Your task to perform on an android device: Add "dell xps" to the cart on bestbuy, then select checkout. Image 0: 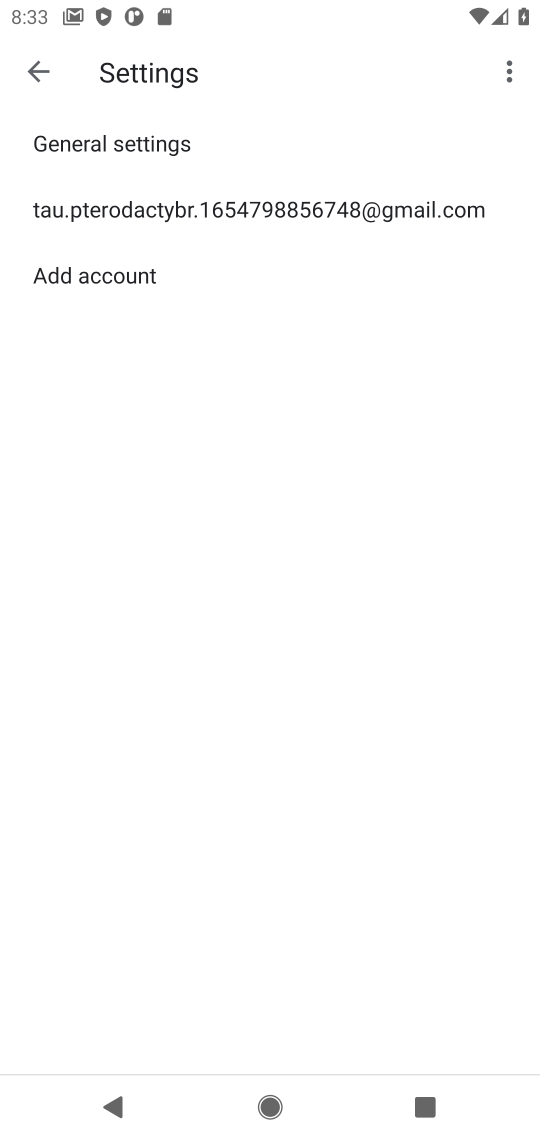
Step 0: press home button
Your task to perform on an android device: Add "dell xps" to the cart on bestbuy, then select checkout. Image 1: 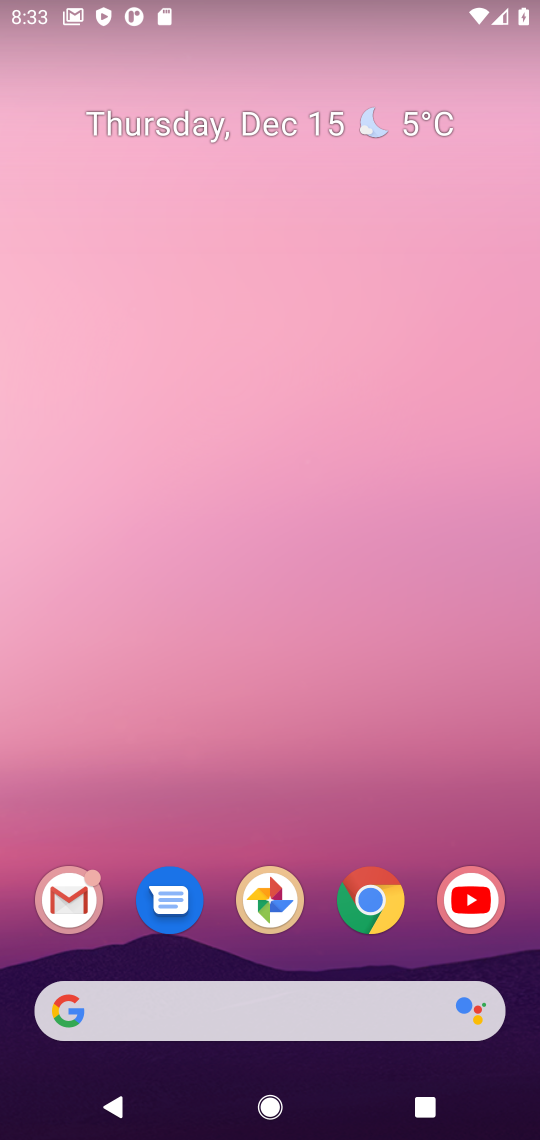
Step 1: click (375, 914)
Your task to perform on an android device: Add "dell xps" to the cart on bestbuy, then select checkout. Image 2: 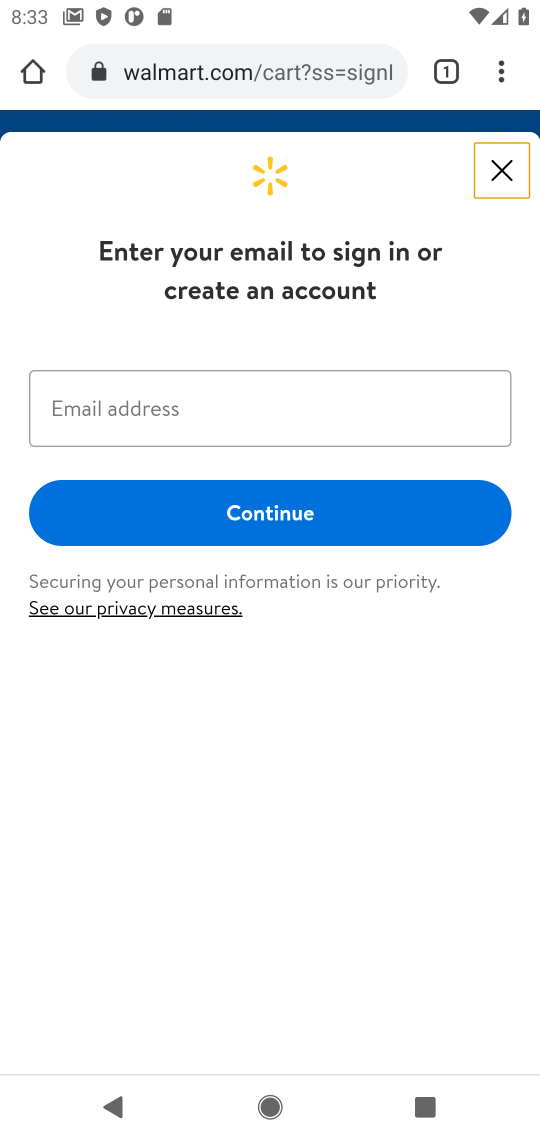
Step 2: click (247, 87)
Your task to perform on an android device: Add "dell xps" to the cart on bestbuy, then select checkout. Image 3: 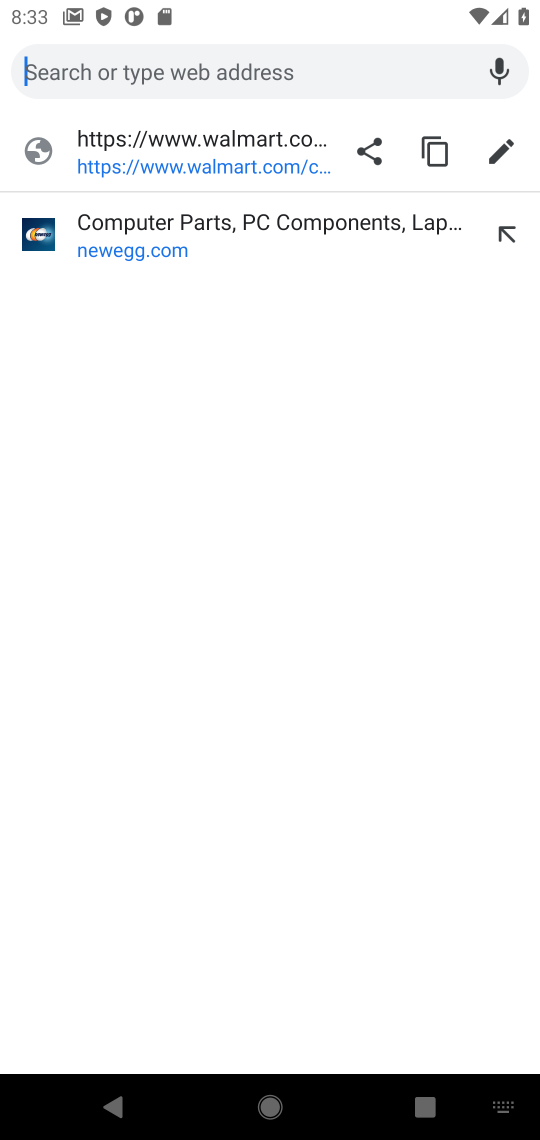
Step 3: type "bestbuy"
Your task to perform on an android device: Add "dell xps" to the cart on bestbuy, then select checkout. Image 4: 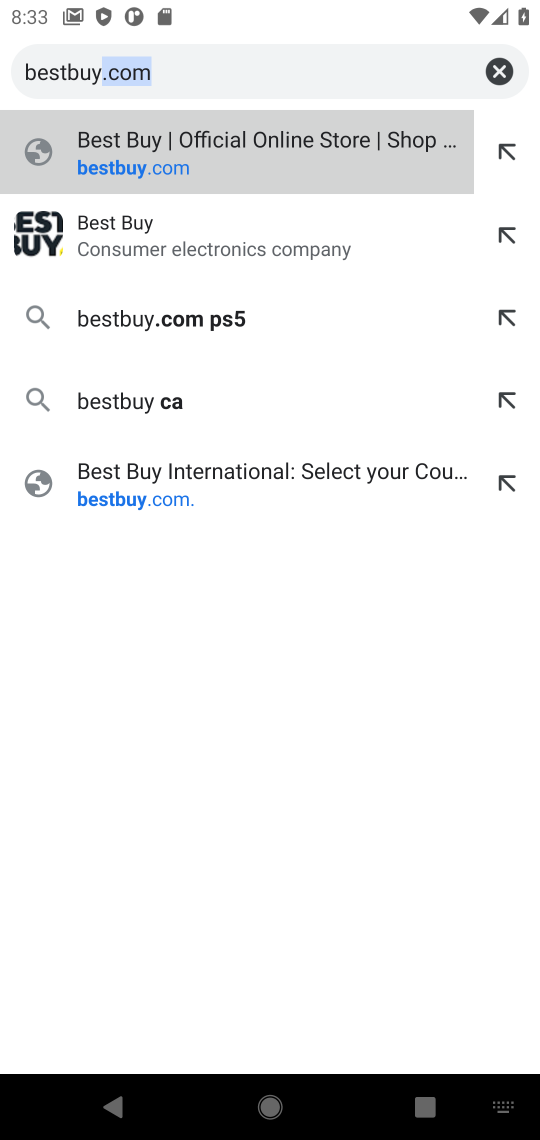
Step 4: click (167, 150)
Your task to perform on an android device: Add "dell xps" to the cart on bestbuy, then select checkout. Image 5: 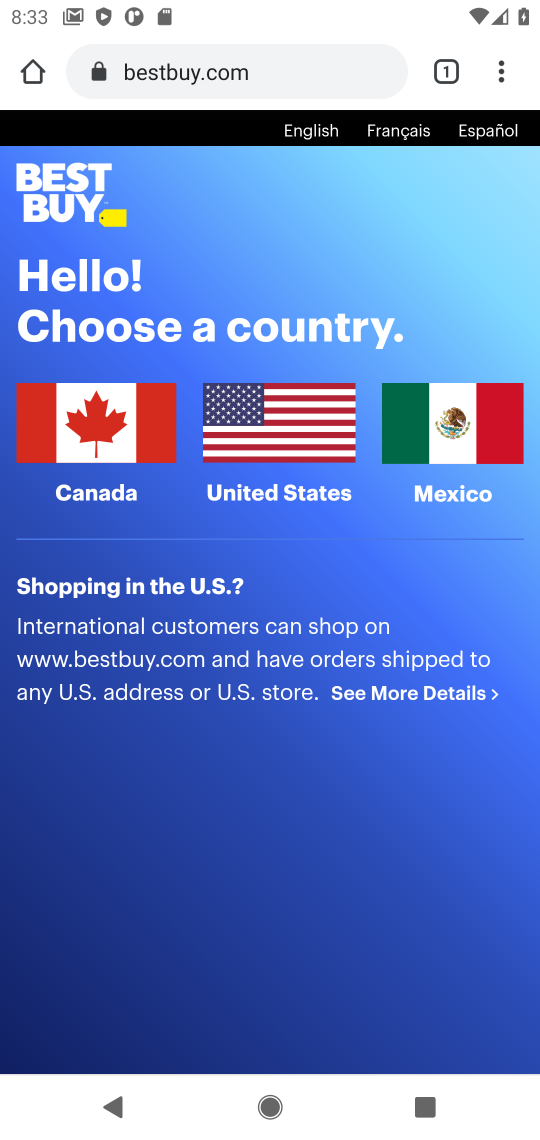
Step 5: click (297, 420)
Your task to perform on an android device: Add "dell xps" to the cart on bestbuy, then select checkout. Image 6: 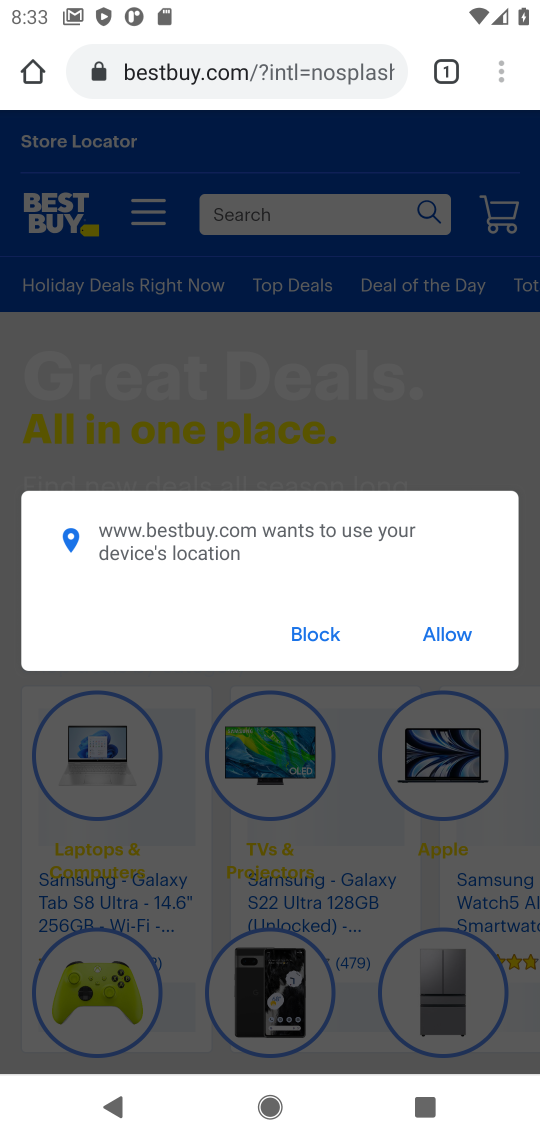
Step 6: click (308, 641)
Your task to perform on an android device: Add "dell xps" to the cart on bestbuy, then select checkout. Image 7: 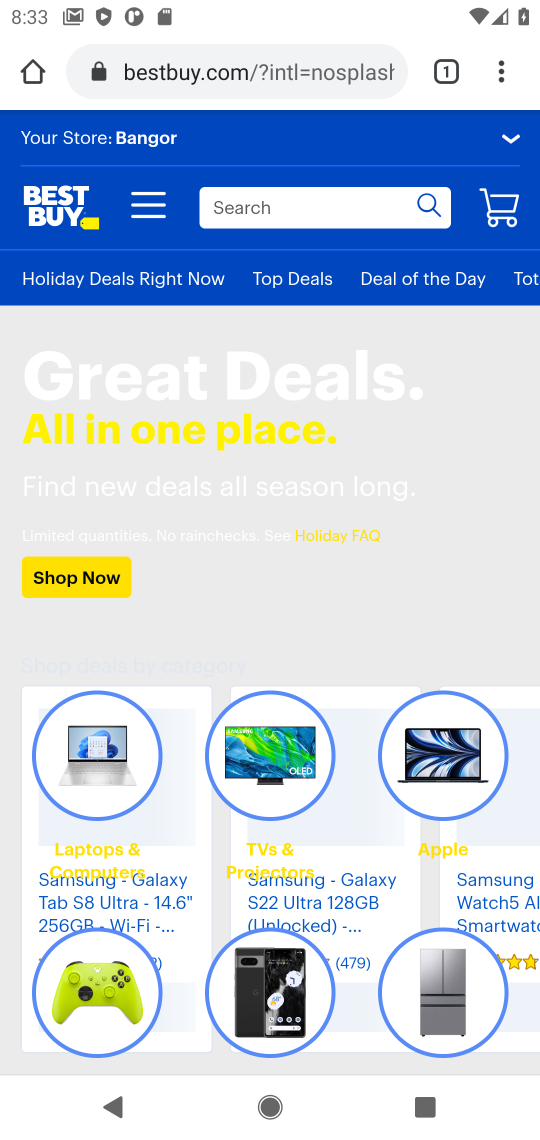
Step 7: click (263, 212)
Your task to perform on an android device: Add "dell xps" to the cart on bestbuy, then select checkout. Image 8: 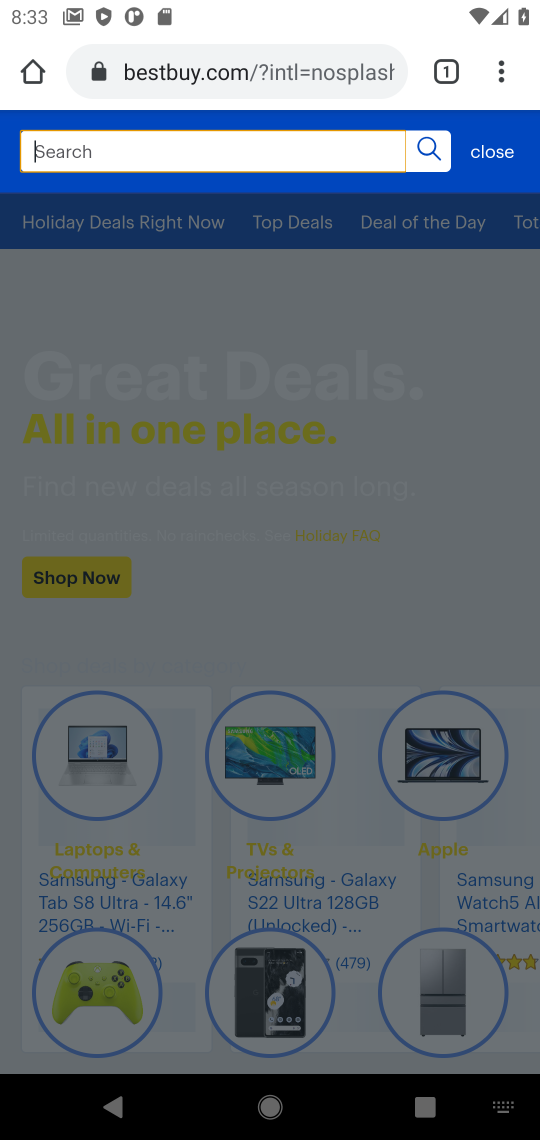
Step 8: type "dell xps"
Your task to perform on an android device: Add "dell xps" to the cart on bestbuy, then select checkout. Image 9: 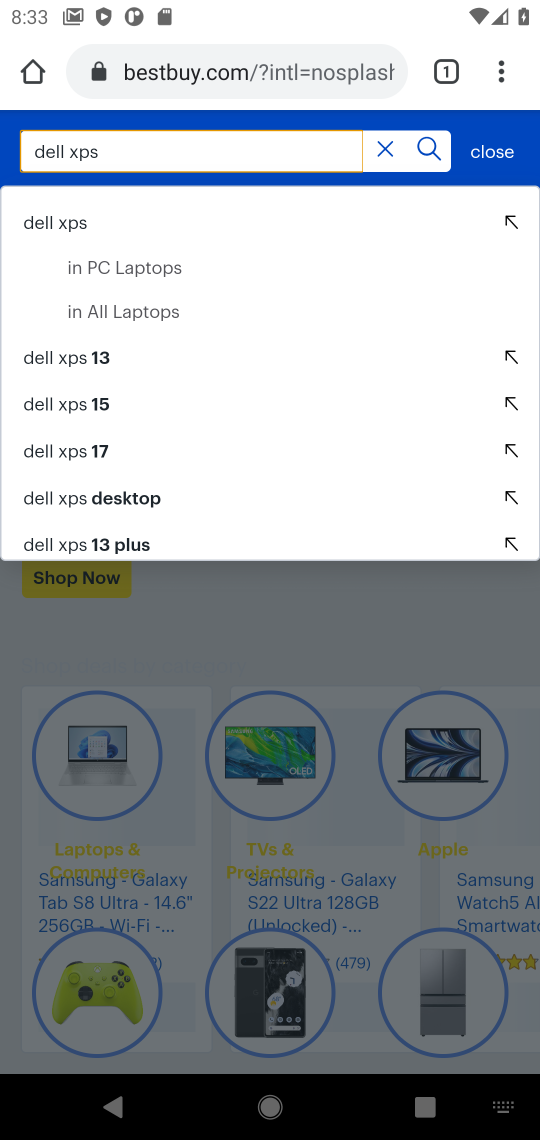
Step 9: press enter
Your task to perform on an android device: Add "dell xps" to the cart on bestbuy, then select checkout. Image 10: 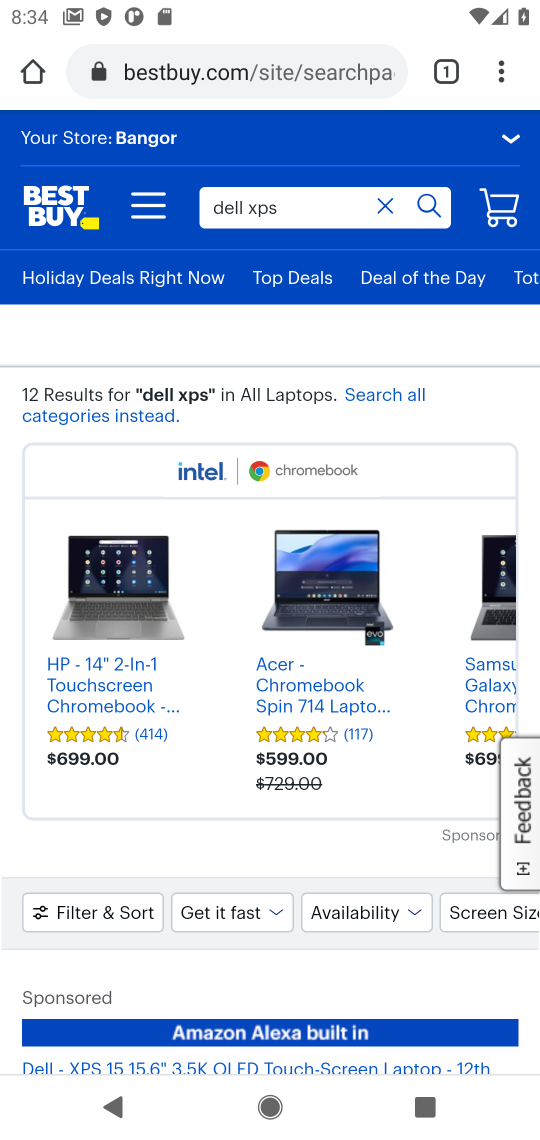
Step 10: drag from (206, 818) to (263, 197)
Your task to perform on an android device: Add "dell xps" to the cart on bestbuy, then select checkout. Image 11: 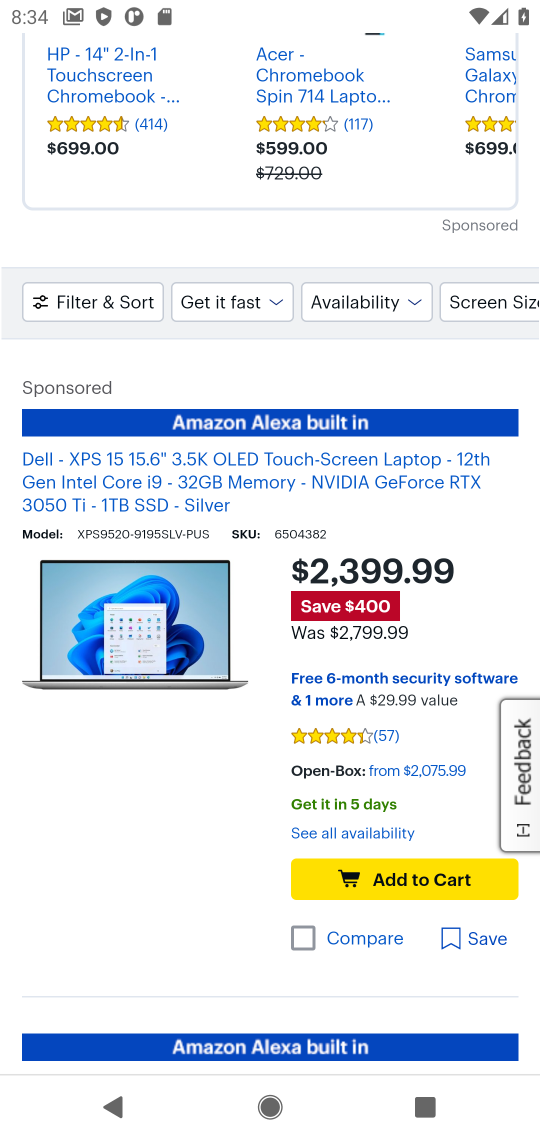
Step 11: click (424, 890)
Your task to perform on an android device: Add "dell xps" to the cart on bestbuy, then select checkout. Image 12: 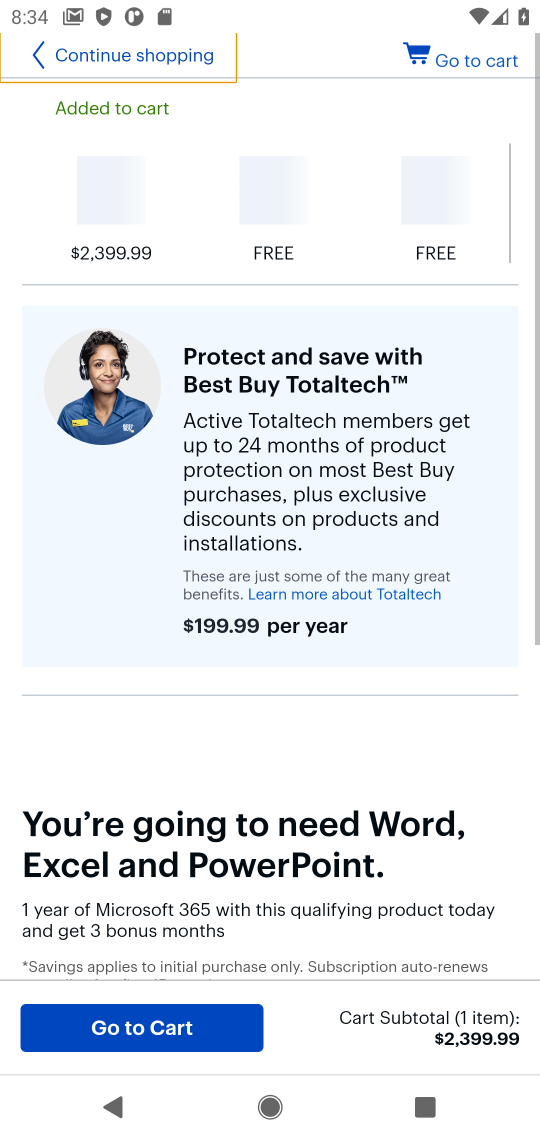
Step 12: click (146, 1026)
Your task to perform on an android device: Add "dell xps" to the cart on bestbuy, then select checkout. Image 13: 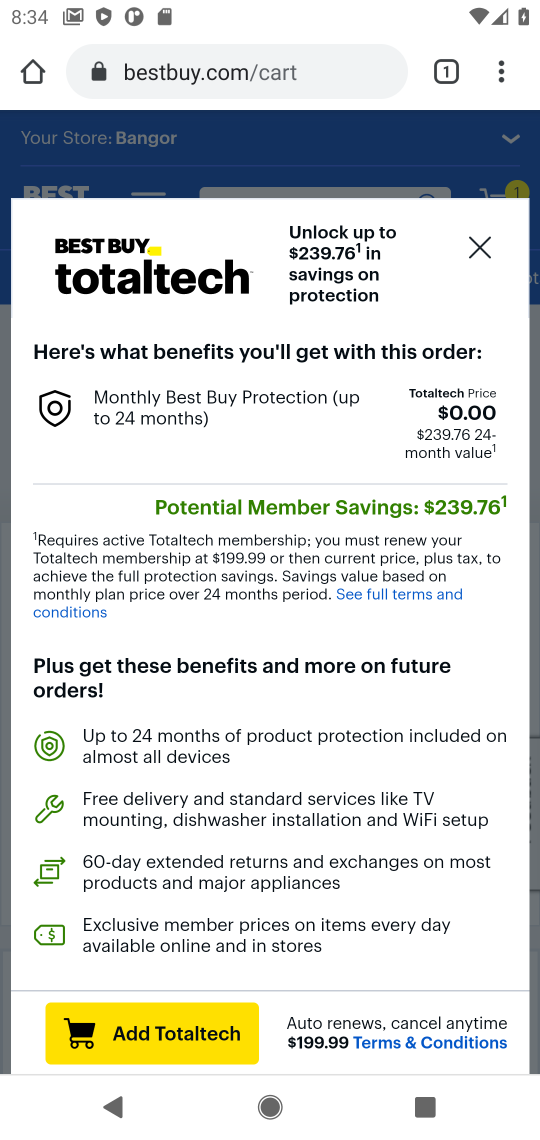
Step 13: click (128, 1041)
Your task to perform on an android device: Add "dell xps" to the cart on bestbuy, then select checkout. Image 14: 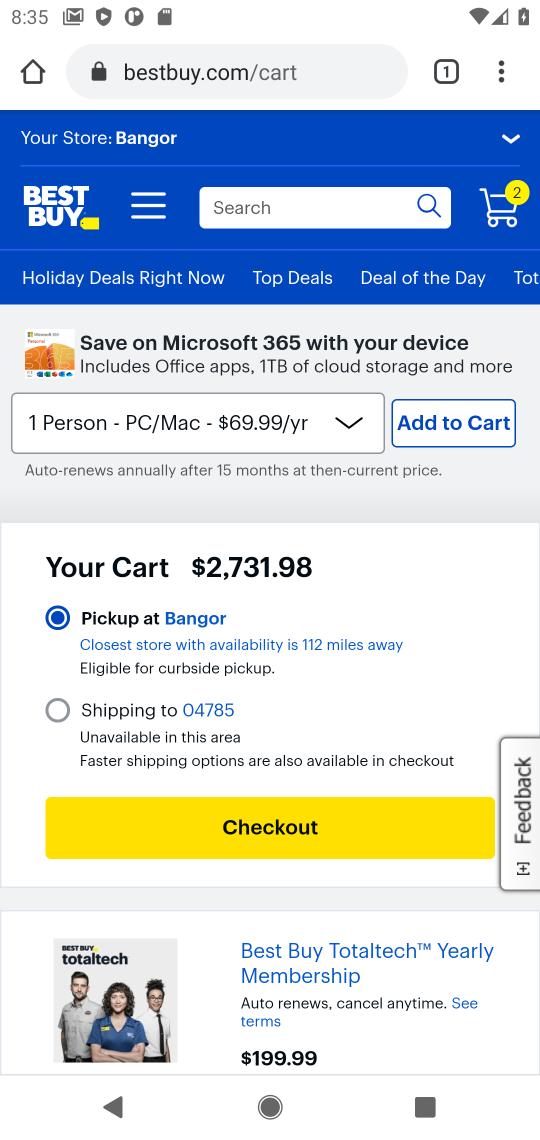
Step 14: click (287, 831)
Your task to perform on an android device: Add "dell xps" to the cart on bestbuy, then select checkout. Image 15: 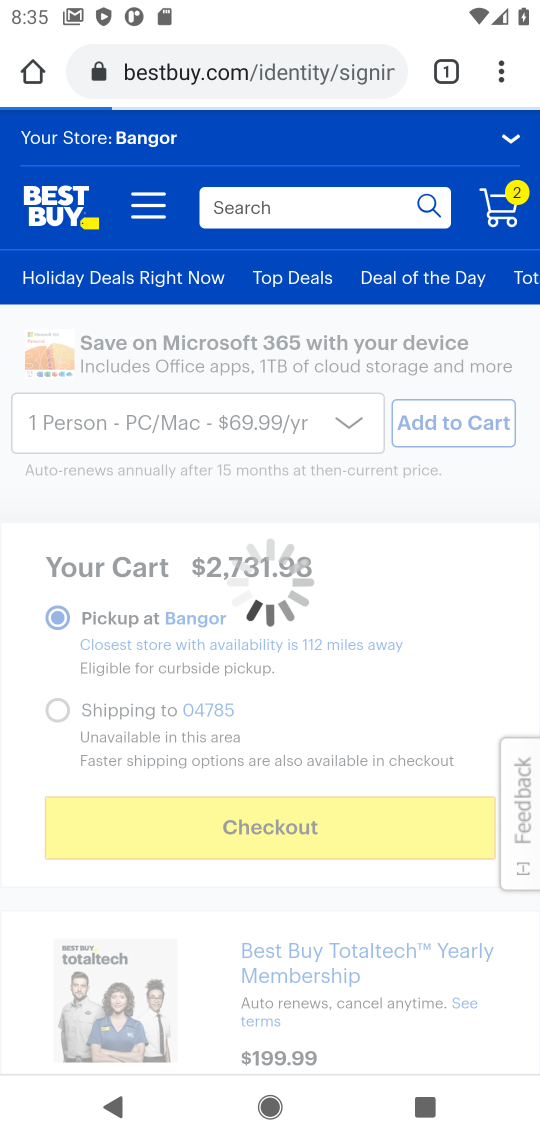
Step 15: task complete